Your task to perform on an android device: Toggle the flashlight Image 0: 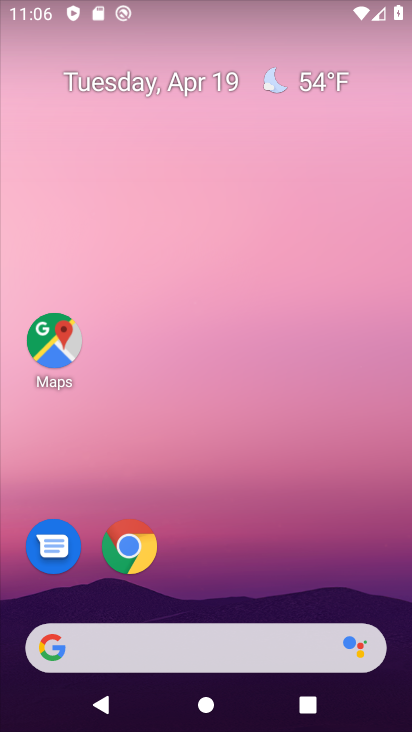
Step 0: drag from (301, 17) to (283, 597)
Your task to perform on an android device: Toggle the flashlight Image 1: 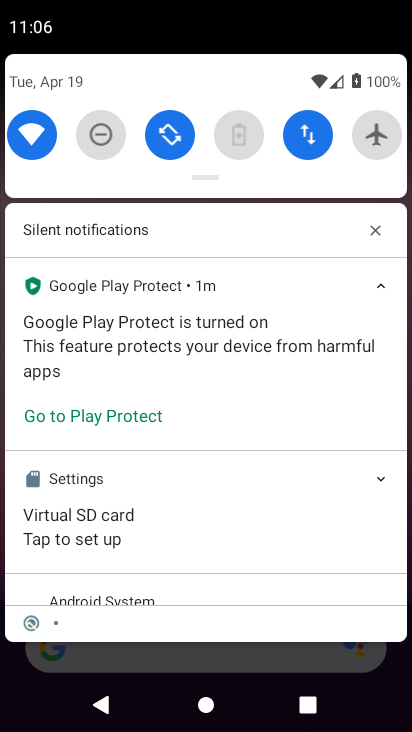
Step 1: task complete